Your task to perform on an android device: Open sound settings Image 0: 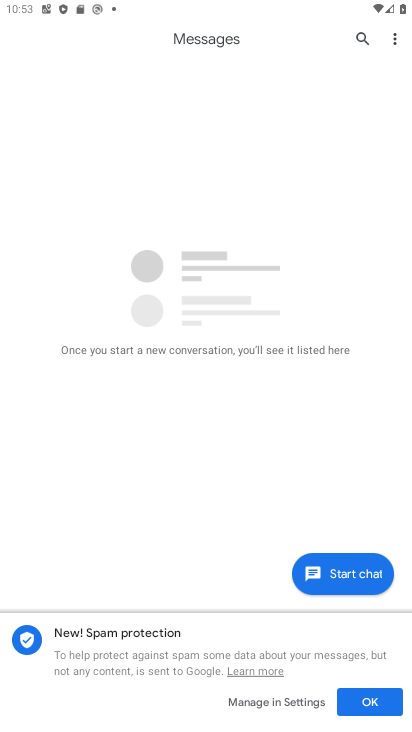
Step 0: press home button
Your task to perform on an android device: Open sound settings Image 1: 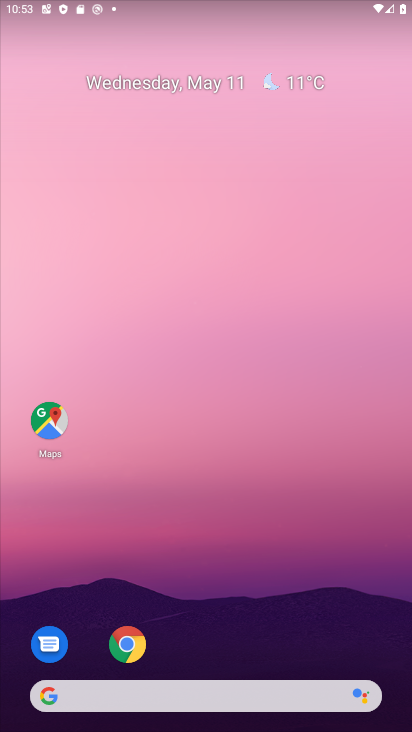
Step 1: drag from (217, 655) to (233, 139)
Your task to perform on an android device: Open sound settings Image 2: 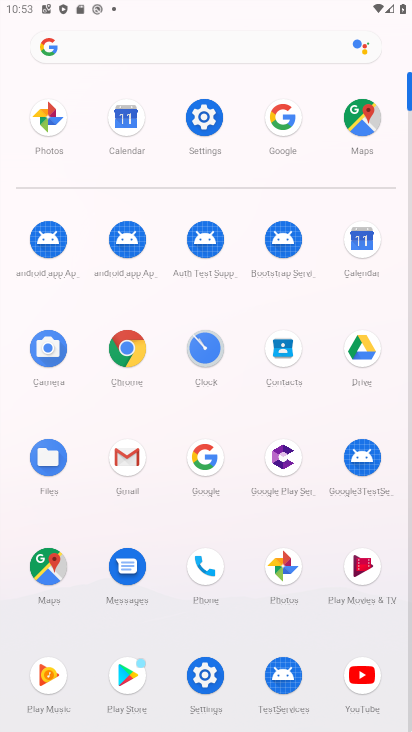
Step 2: click (204, 665)
Your task to perform on an android device: Open sound settings Image 3: 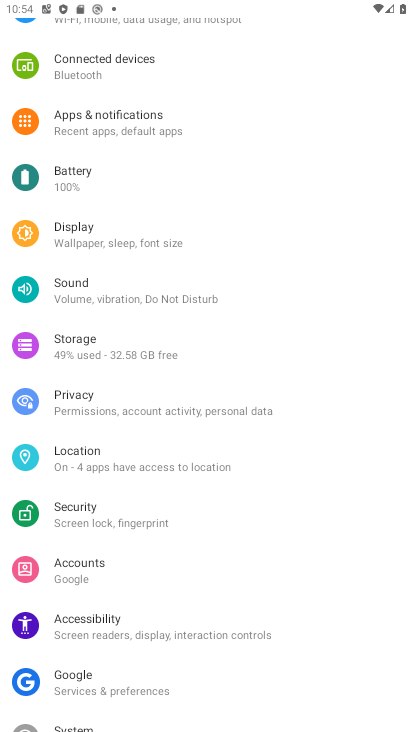
Step 3: click (91, 283)
Your task to perform on an android device: Open sound settings Image 4: 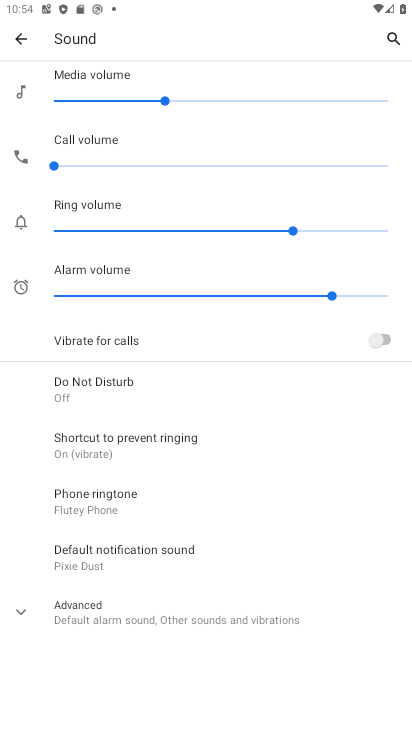
Step 4: click (24, 609)
Your task to perform on an android device: Open sound settings Image 5: 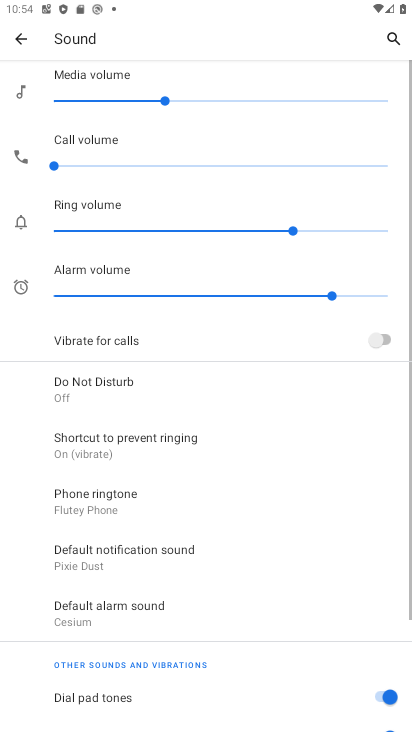
Step 5: task complete